Your task to perform on an android device: turn on notifications settings in the gmail app Image 0: 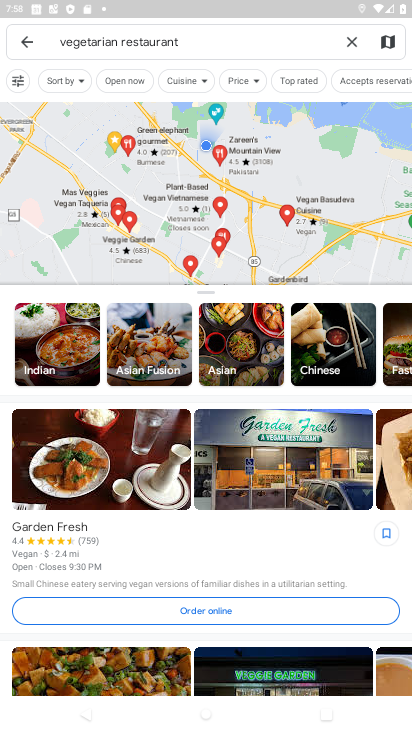
Step 0: press home button
Your task to perform on an android device: turn on notifications settings in the gmail app Image 1: 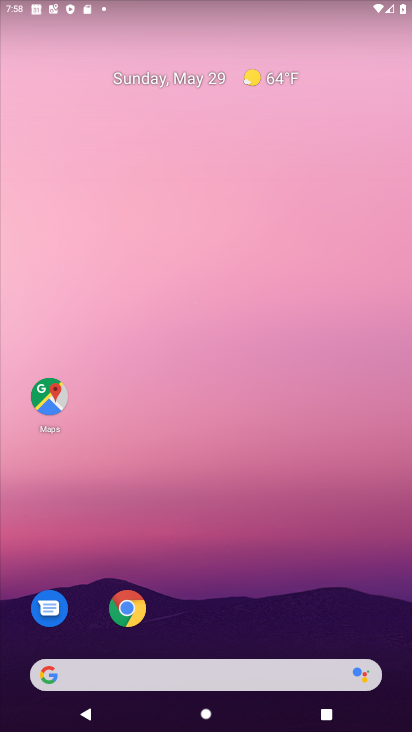
Step 1: drag from (225, 485) to (170, 22)
Your task to perform on an android device: turn on notifications settings in the gmail app Image 2: 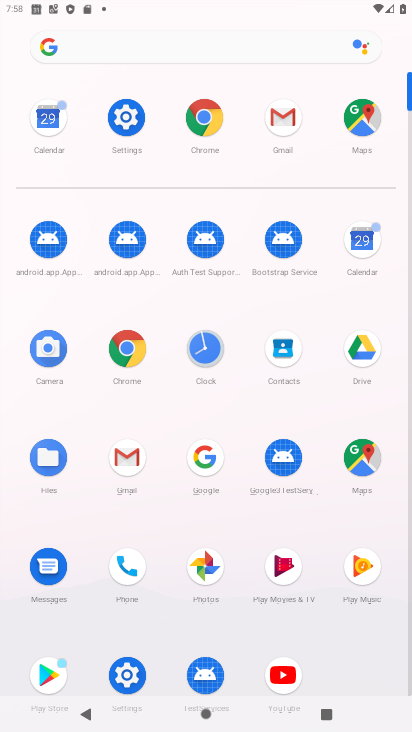
Step 2: click (282, 114)
Your task to perform on an android device: turn on notifications settings in the gmail app Image 3: 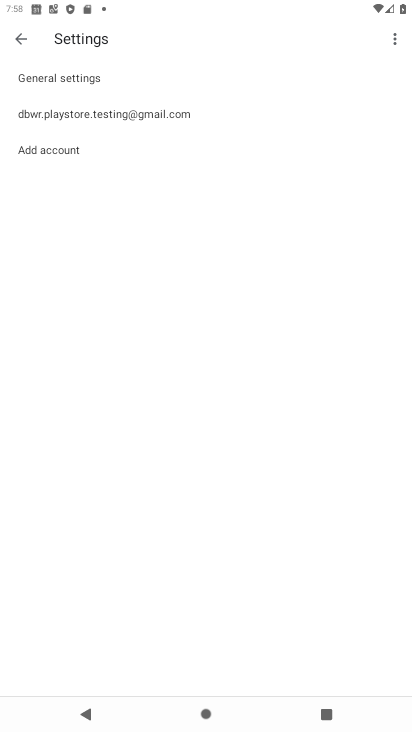
Step 3: click (77, 85)
Your task to perform on an android device: turn on notifications settings in the gmail app Image 4: 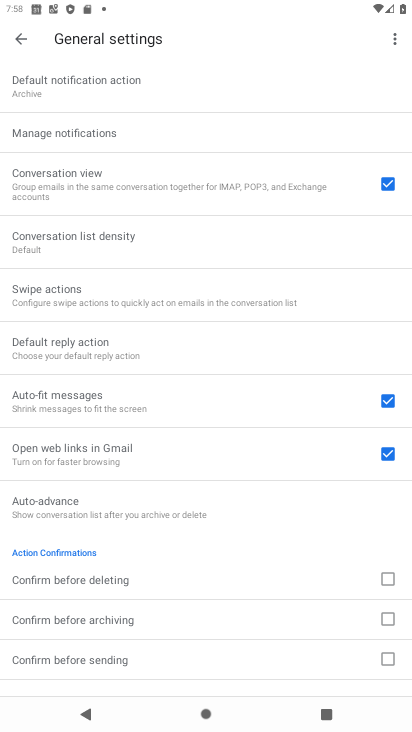
Step 4: click (75, 136)
Your task to perform on an android device: turn on notifications settings in the gmail app Image 5: 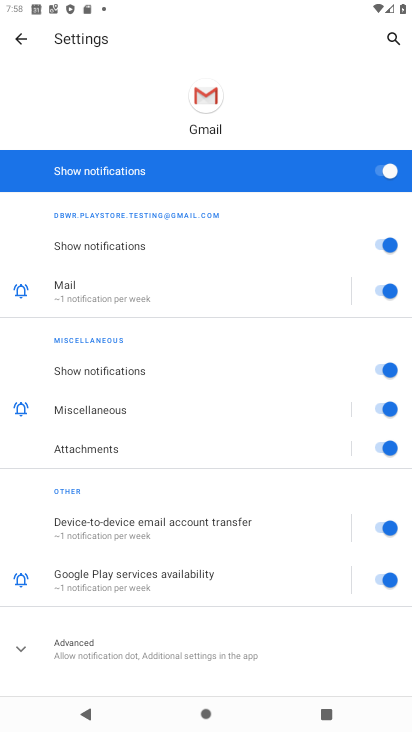
Step 5: task complete